Your task to perform on an android device: Open eBay Image 0: 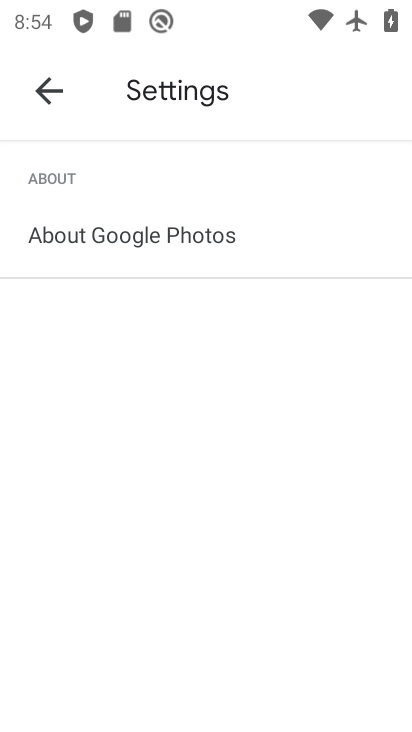
Step 0: press home button
Your task to perform on an android device: Open eBay Image 1: 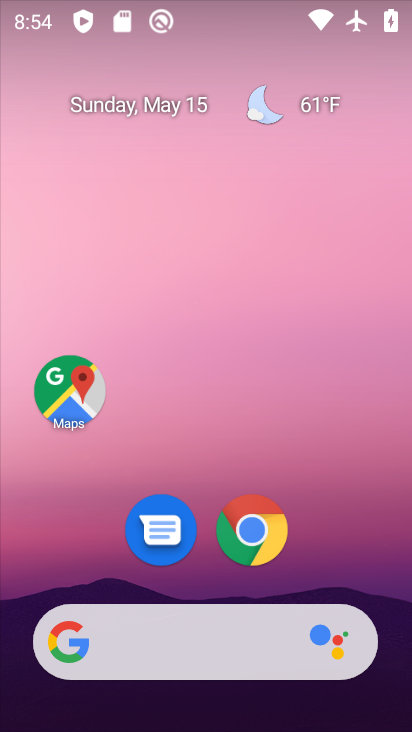
Step 1: click (253, 533)
Your task to perform on an android device: Open eBay Image 2: 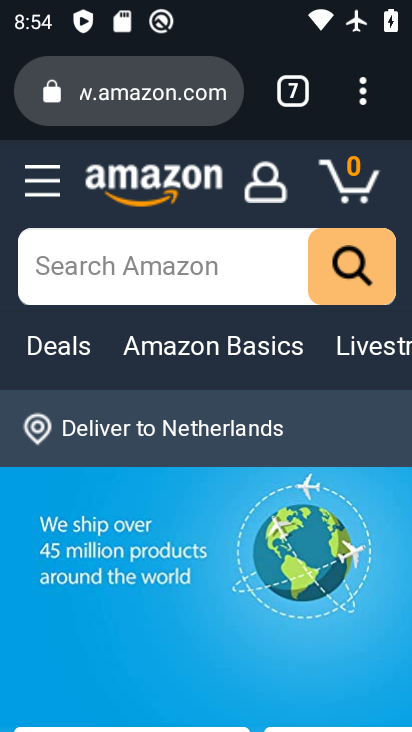
Step 2: click (361, 99)
Your task to perform on an android device: Open eBay Image 3: 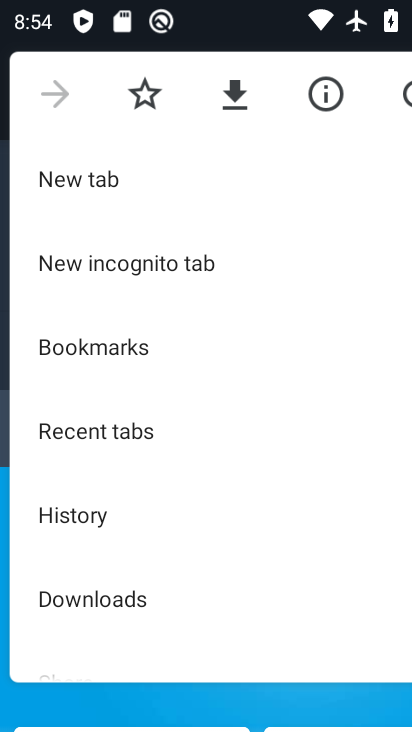
Step 3: click (72, 188)
Your task to perform on an android device: Open eBay Image 4: 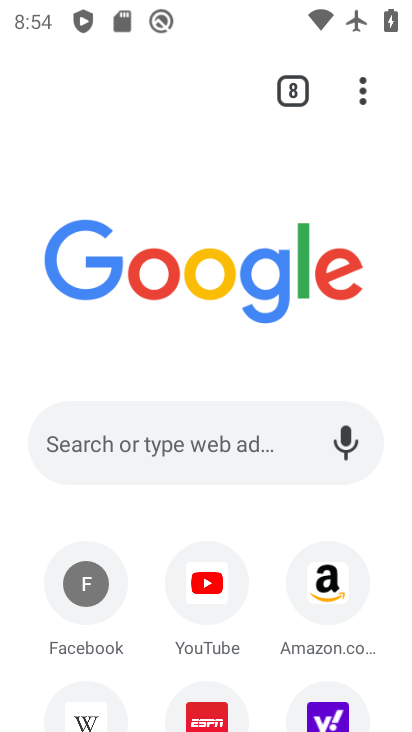
Step 4: click (145, 427)
Your task to perform on an android device: Open eBay Image 5: 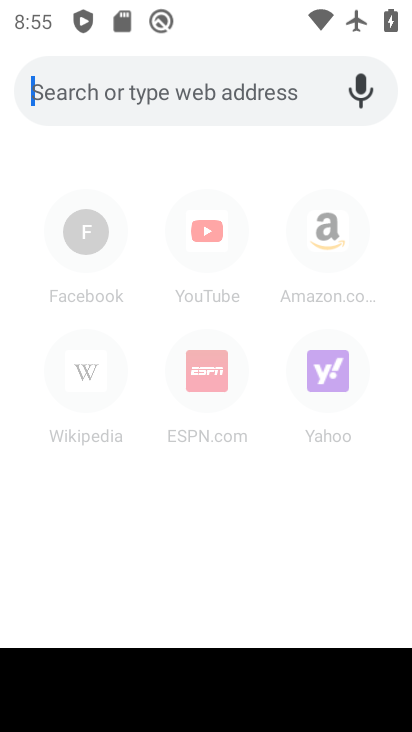
Step 5: type "eBay"
Your task to perform on an android device: Open eBay Image 6: 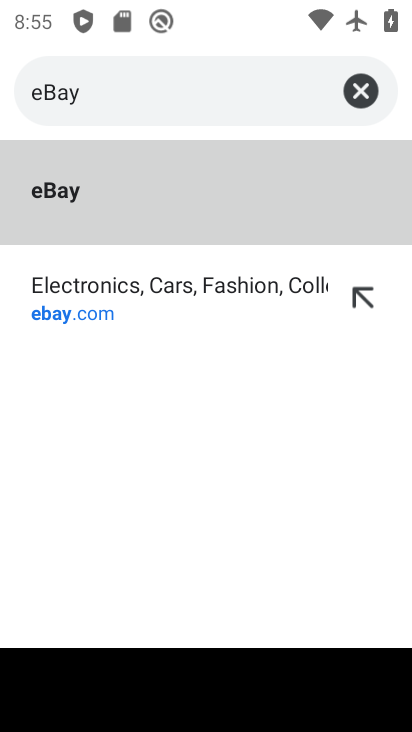
Step 6: click (83, 194)
Your task to perform on an android device: Open eBay Image 7: 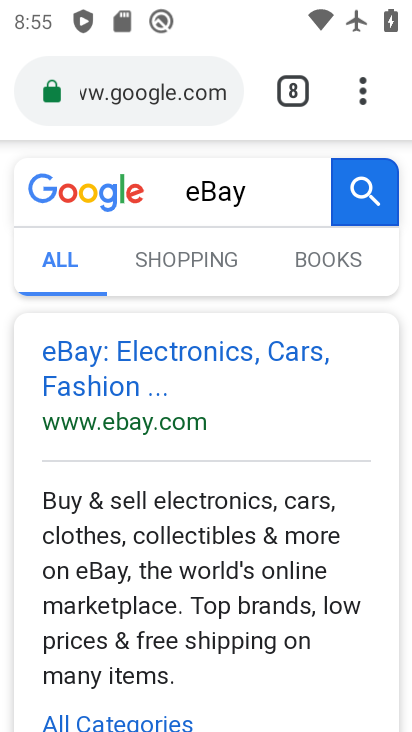
Step 7: click (161, 342)
Your task to perform on an android device: Open eBay Image 8: 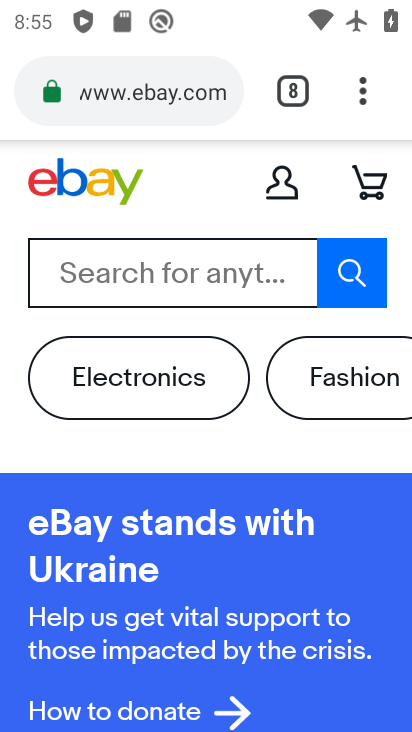
Step 8: task complete